Your task to perform on an android device: Open the Play Movies app and select the watchlist tab. Image 0: 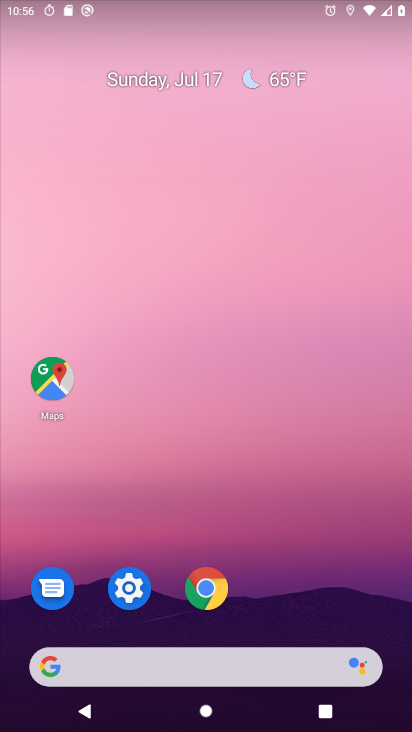
Step 0: click (175, 206)
Your task to perform on an android device: Open the Play Movies app and select the watchlist tab. Image 1: 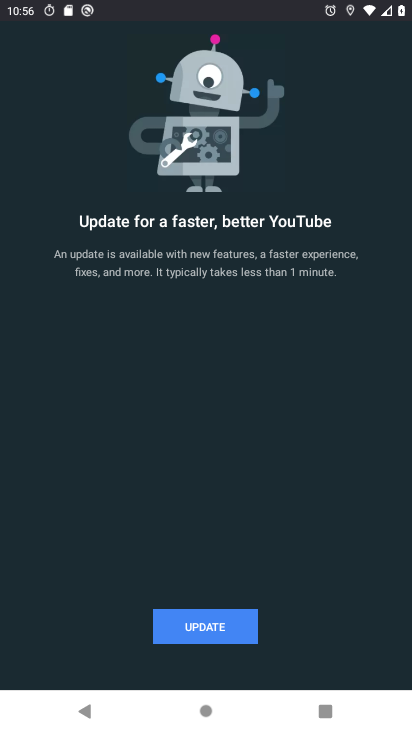
Step 1: press back button
Your task to perform on an android device: Open the Play Movies app and select the watchlist tab. Image 2: 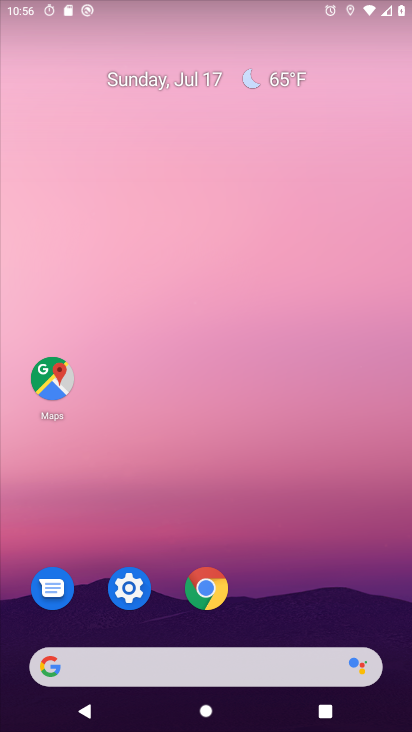
Step 2: drag from (275, 618) to (188, 146)
Your task to perform on an android device: Open the Play Movies app and select the watchlist tab. Image 3: 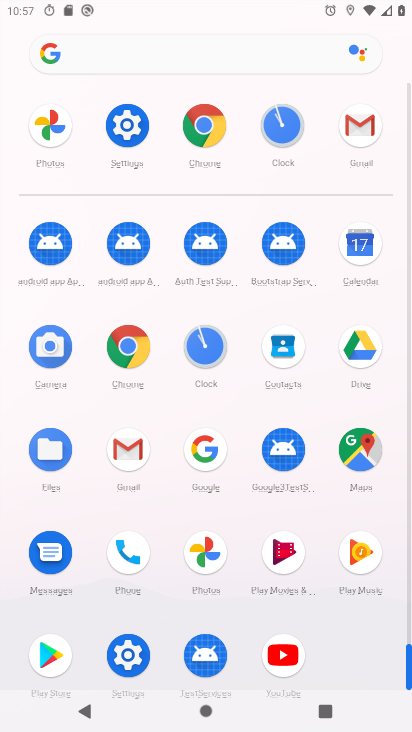
Step 3: click (278, 553)
Your task to perform on an android device: Open the Play Movies app and select the watchlist tab. Image 4: 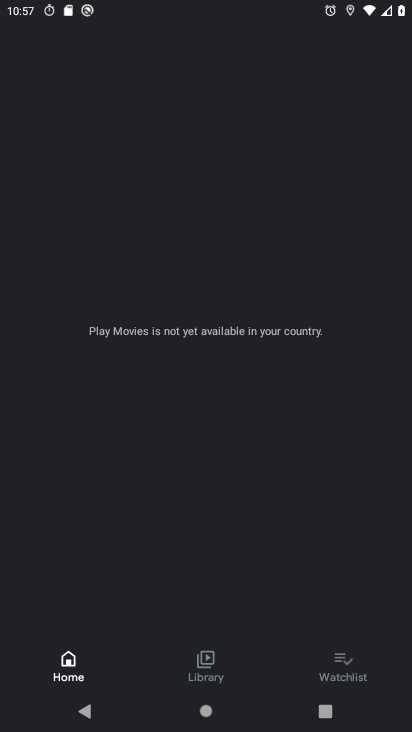
Step 4: click (358, 660)
Your task to perform on an android device: Open the Play Movies app and select the watchlist tab. Image 5: 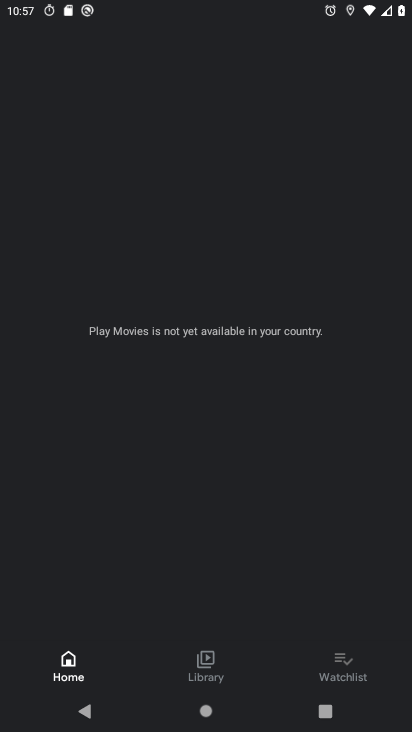
Step 5: click (358, 660)
Your task to perform on an android device: Open the Play Movies app and select the watchlist tab. Image 6: 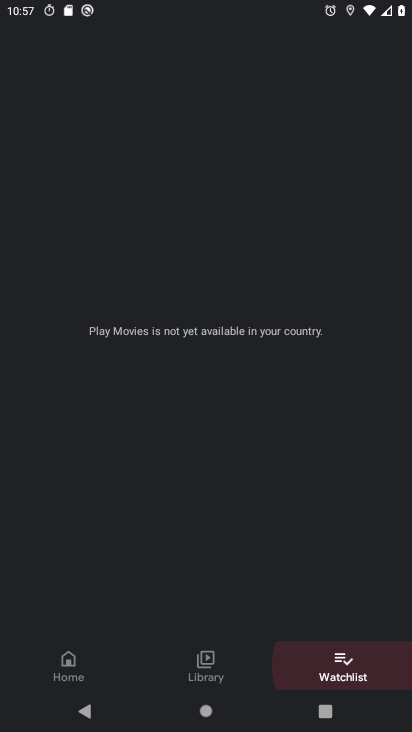
Step 6: click (356, 668)
Your task to perform on an android device: Open the Play Movies app and select the watchlist tab. Image 7: 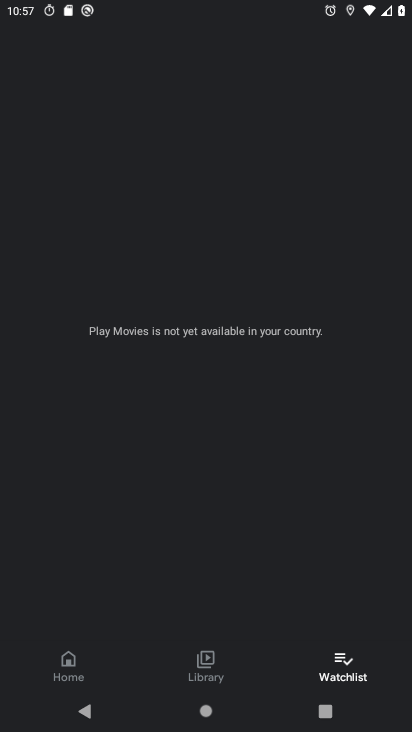
Step 7: click (356, 669)
Your task to perform on an android device: Open the Play Movies app and select the watchlist tab. Image 8: 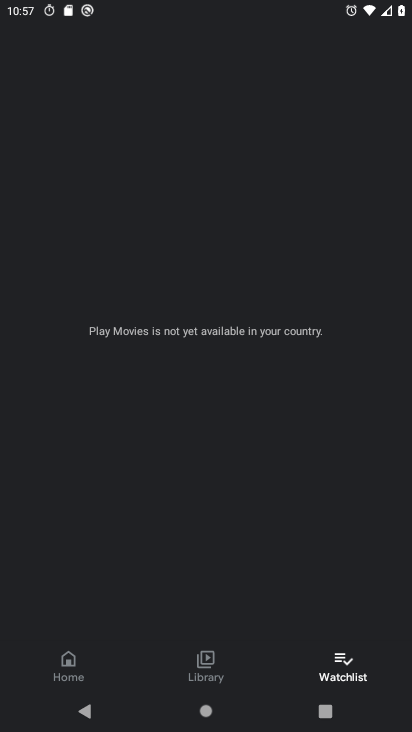
Step 8: task complete